Your task to perform on an android device: Go to settings Image 0: 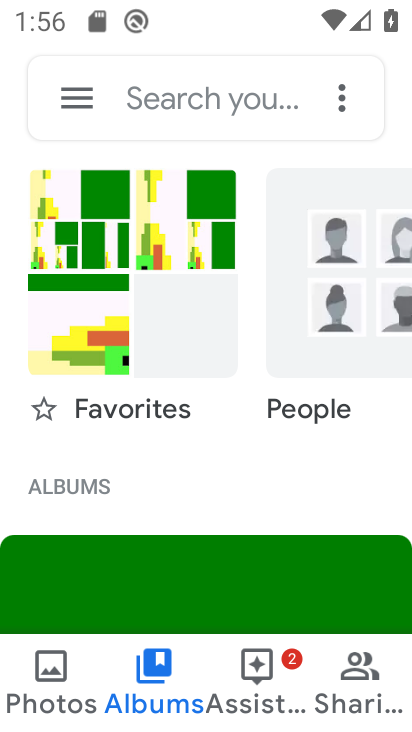
Step 0: press home button
Your task to perform on an android device: Go to settings Image 1: 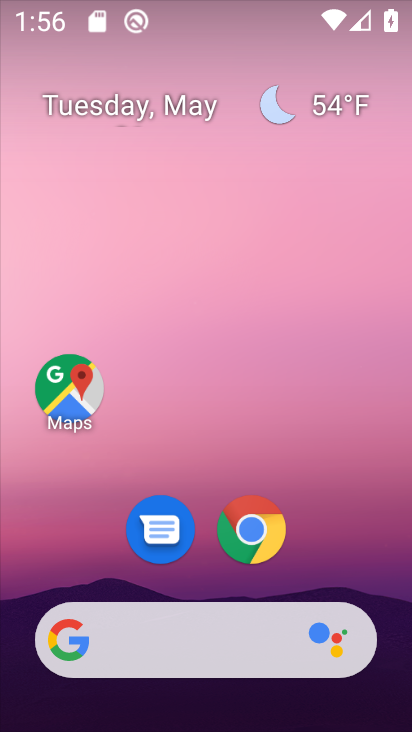
Step 1: drag from (340, 529) to (305, 185)
Your task to perform on an android device: Go to settings Image 2: 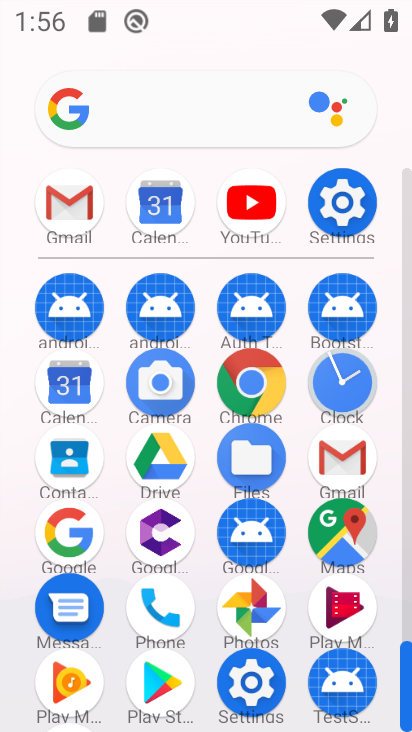
Step 2: click (350, 191)
Your task to perform on an android device: Go to settings Image 3: 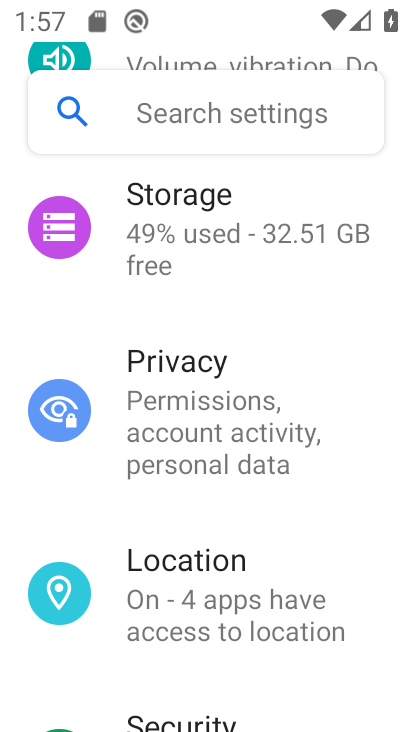
Step 3: task complete